Your task to perform on an android device: remove spam from my inbox in the gmail app Image 0: 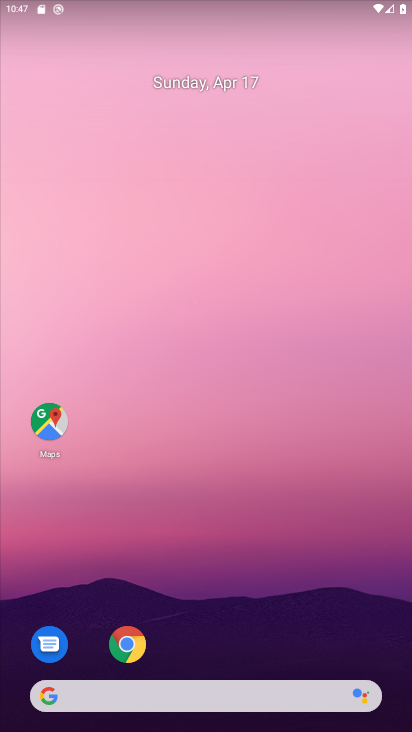
Step 0: click (279, 511)
Your task to perform on an android device: remove spam from my inbox in the gmail app Image 1: 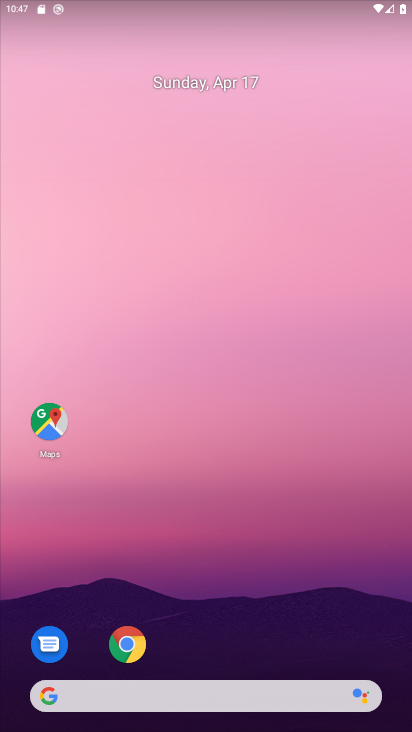
Step 1: drag from (236, 501) to (333, 57)
Your task to perform on an android device: remove spam from my inbox in the gmail app Image 2: 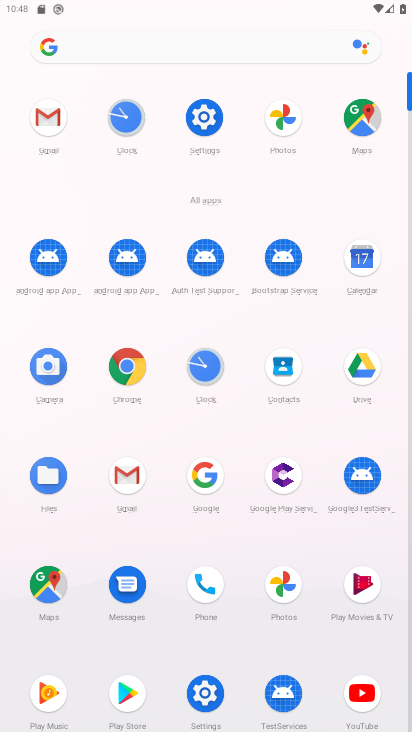
Step 2: click (120, 474)
Your task to perform on an android device: remove spam from my inbox in the gmail app Image 3: 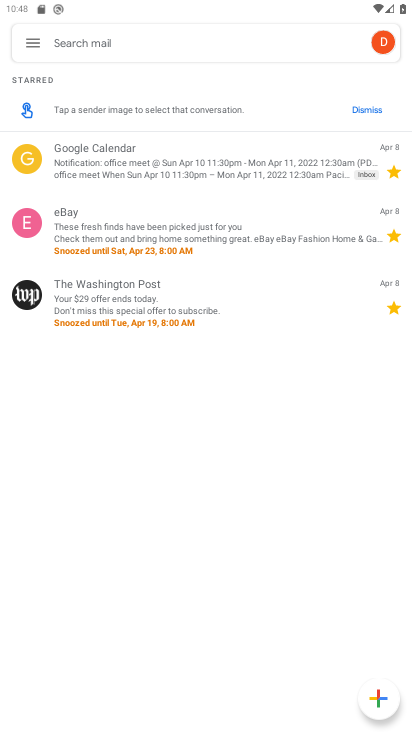
Step 3: click (34, 40)
Your task to perform on an android device: remove spam from my inbox in the gmail app Image 4: 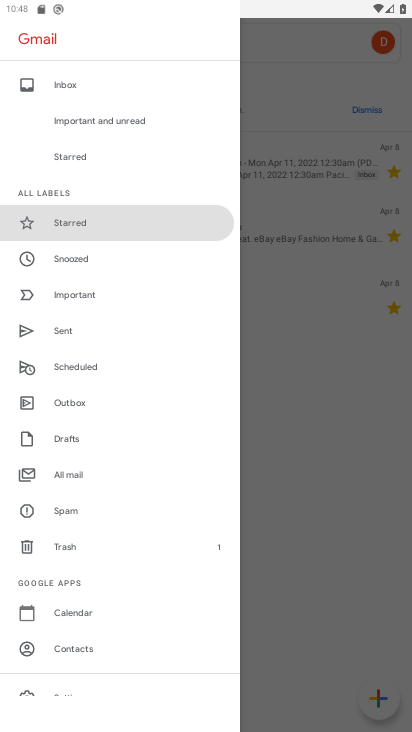
Step 4: click (73, 505)
Your task to perform on an android device: remove spam from my inbox in the gmail app Image 5: 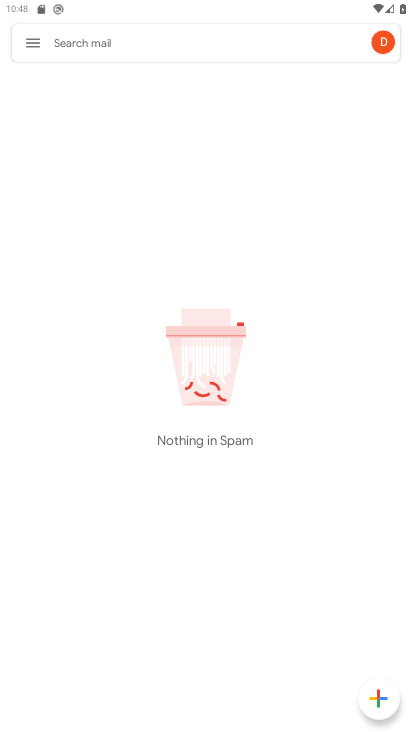
Step 5: task complete